Your task to perform on an android device: Open maps Image 0: 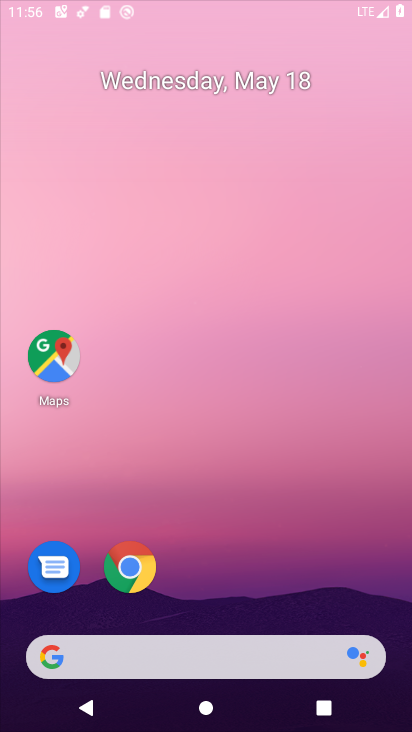
Step 0: click (320, 127)
Your task to perform on an android device: Open maps Image 1: 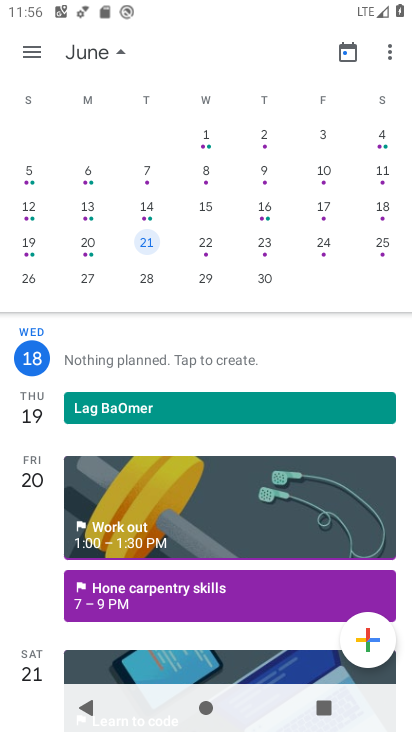
Step 1: press home button
Your task to perform on an android device: Open maps Image 2: 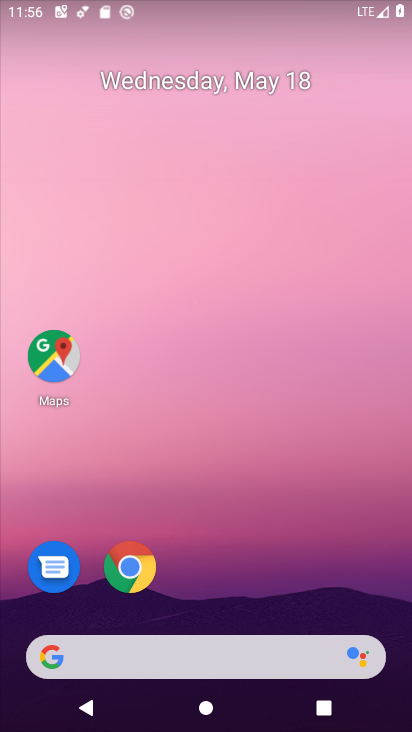
Step 2: click (54, 349)
Your task to perform on an android device: Open maps Image 3: 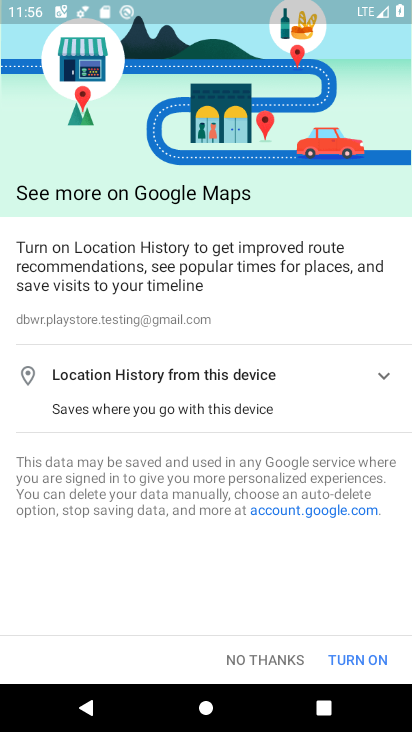
Step 3: task complete